Your task to perform on an android device: Search for sushi restaurants on Maps Image 0: 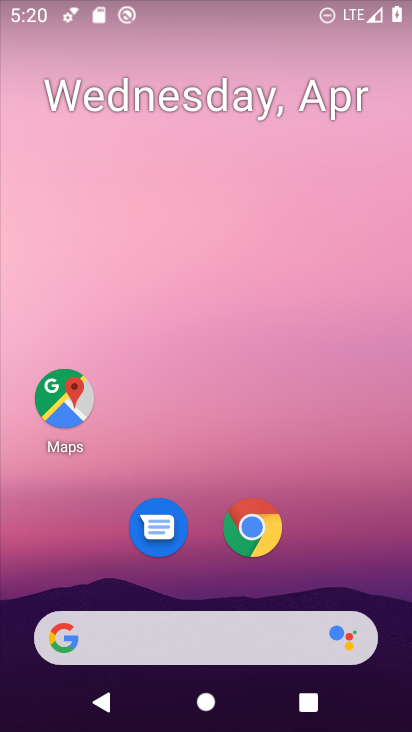
Step 0: click (70, 404)
Your task to perform on an android device: Search for sushi restaurants on Maps Image 1: 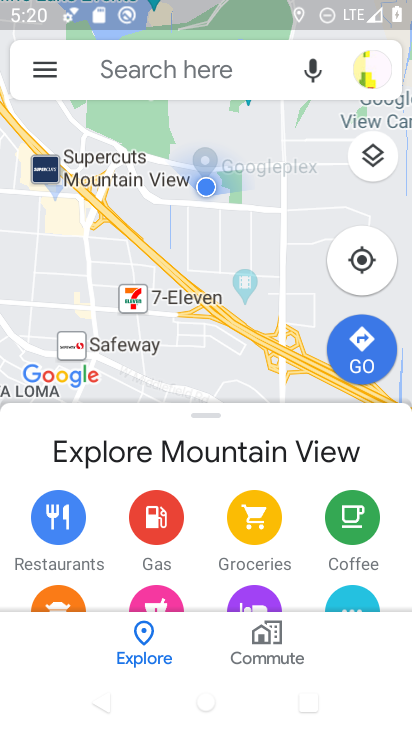
Step 1: click (104, 72)
Your task to perform on an android device: Search for sushi restaurants on Maps Image 2: 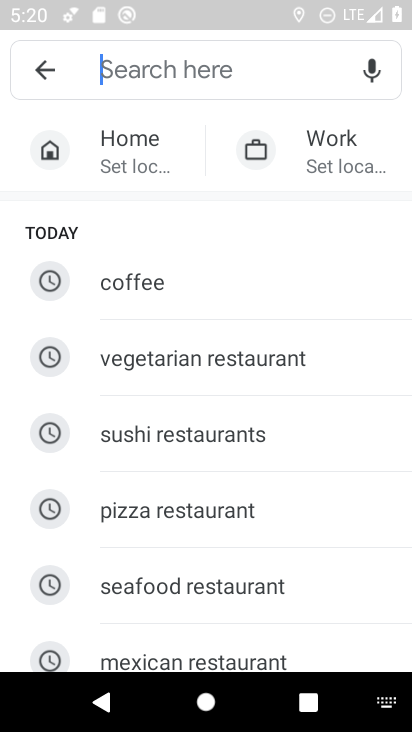
Step 2: type "sushi restaurant"
Your task to perform on an android device: Search for sushi restaurants on Maps Image 3: 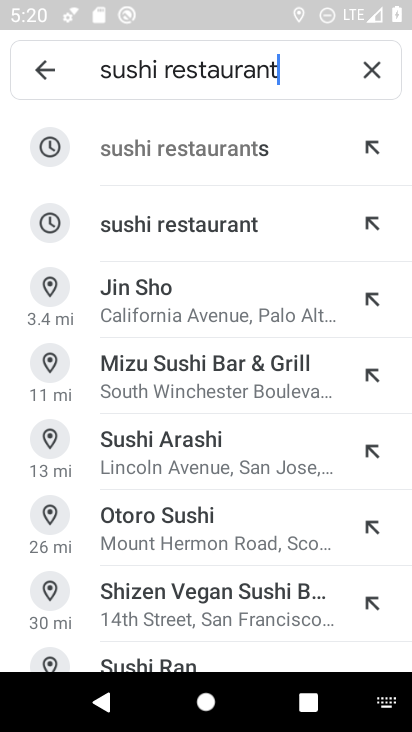
Step 3: click (178, 158)
Your task to perform on an android device: Search for sushi restaurants on Maps Image 4: 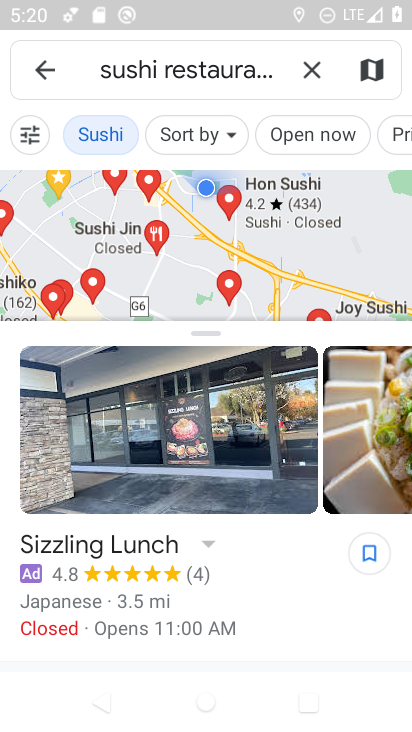
Step 4: task complete